Your task to perform on an android device: turn off notifications in google photos Image 0: 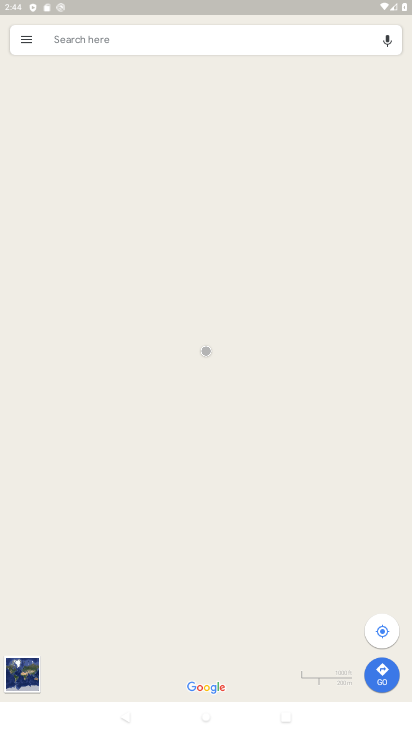
Step 0: press home button
Your task to perform on an android device: turn off notifications in google photos Image 1: 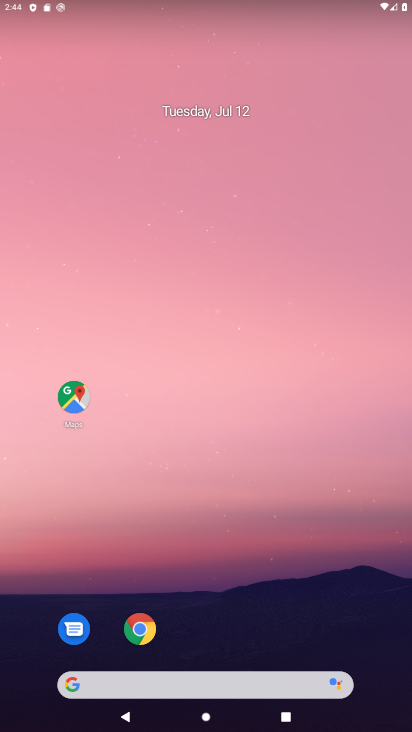
Step 1: drag from (223, 631) to (260, 82)
Your task to perform on an android device: turn off notifications in google photos Image 2: 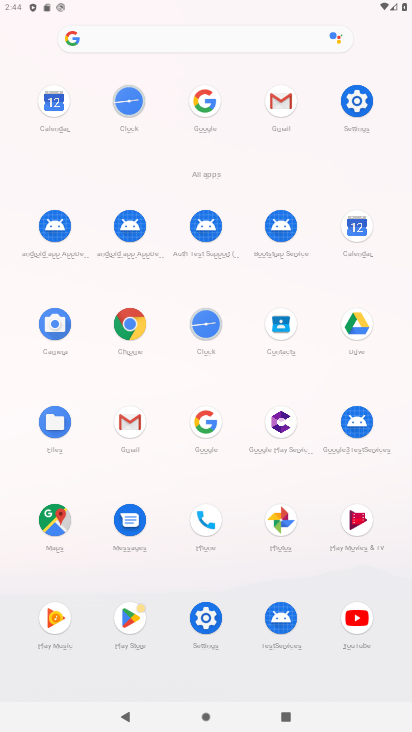
Step 2: click (282, 519)
Your task to perform on an android device: turn off notifications in google photos Image 3: 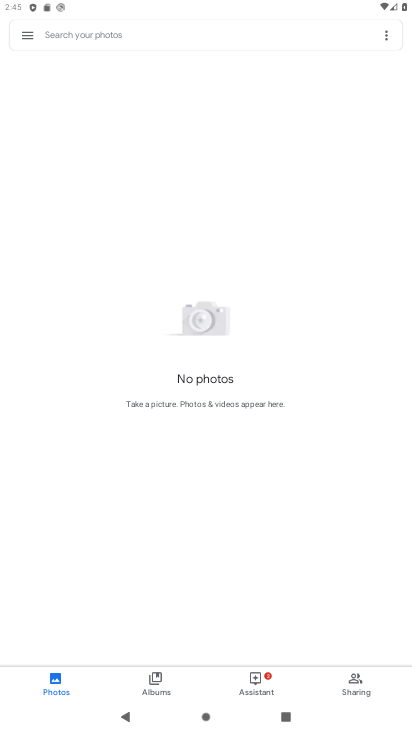
Step 3: click (22, 35)
Your task to perform on an android device: turn off notifications in google photos Image 4: 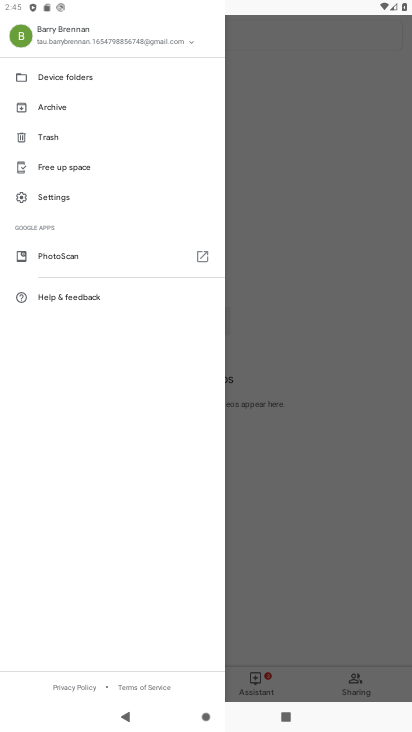
Step 4: click (65, 197)
Your task to perform on an android device: turn off notifications in google photos Image 5: 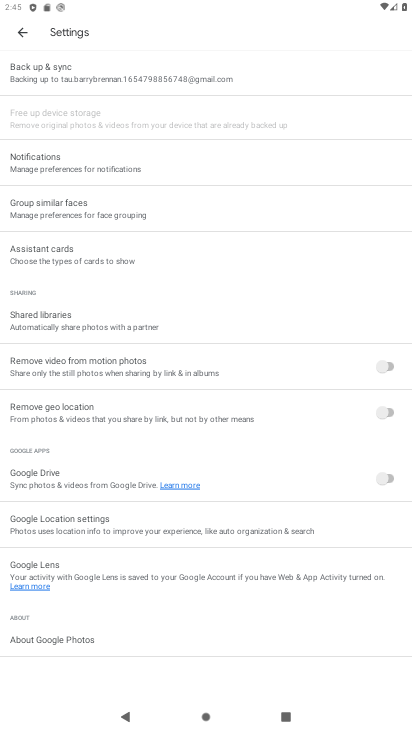
Step 5: click (59, 165)
Your task to perform on an android device: turn off notifications in google photos Image 6: 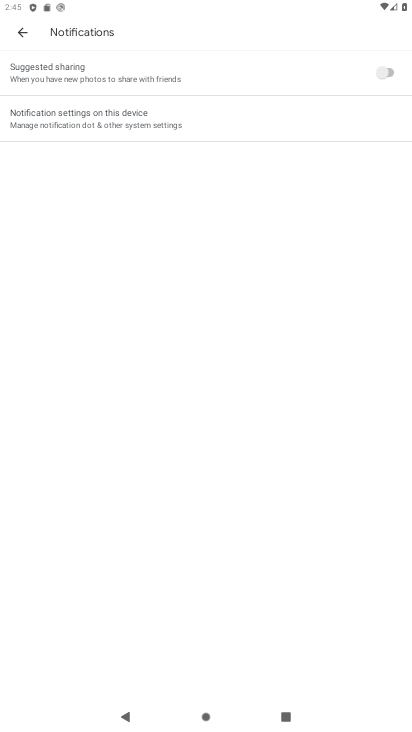
Step 6: click (209, 125)
Your task to perform on an android device: turn off notifications in google photos Image 7: 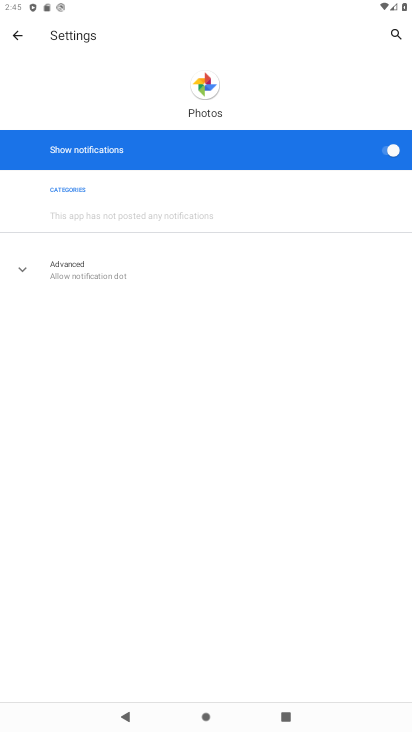
Step 7: click (389, 148)
Your task to perform on an android device: turn off notifications in google photos Image 8: 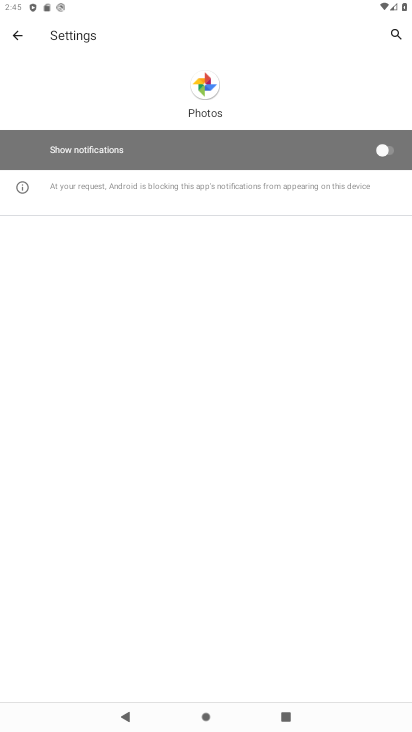
Step 8: task complete